Your task to perform on an android device: Open CNN.com Image 0: 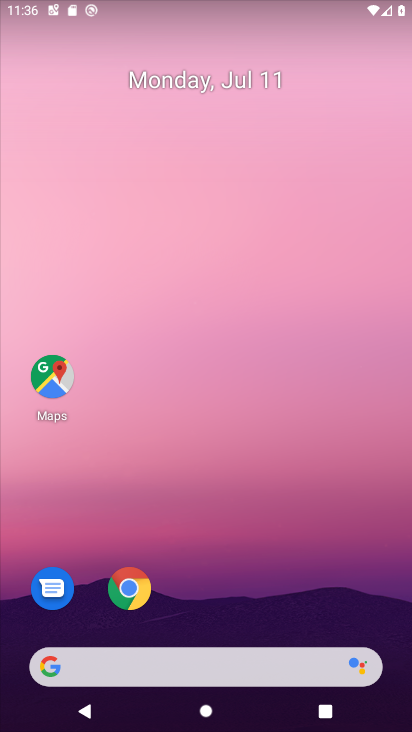
Step 0: drag from (282, 680) to (186, 12)
Your task to perform on an android device: Open CNN.com Image 1: 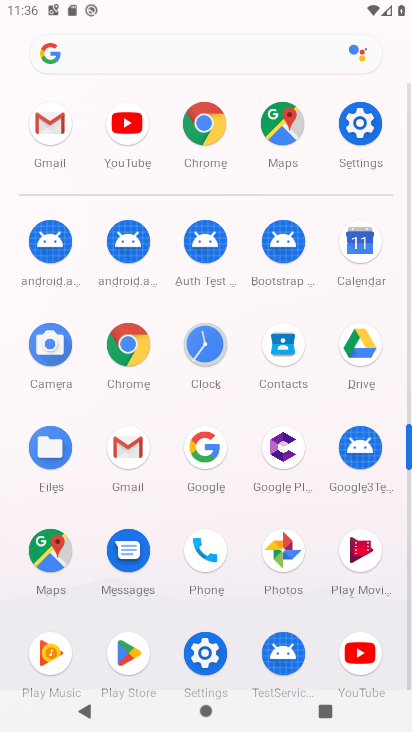
Step 1: click (190, 112)
Your task to perform on an android device: Open CNN.com Image 2: 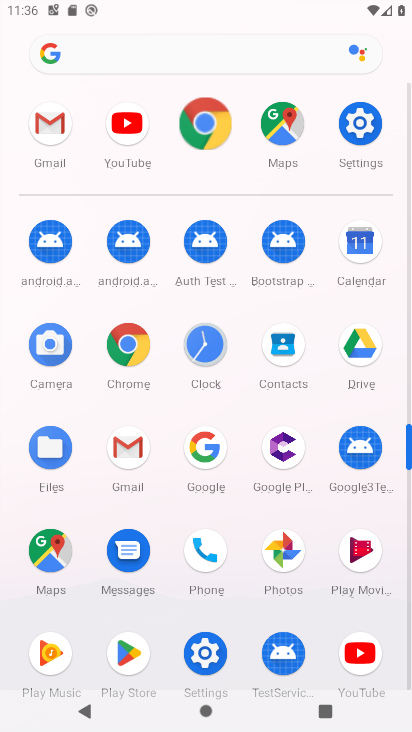
Step 2: click (199, 112)
Your task to perform on an android device: Open CNN.com Image 3: 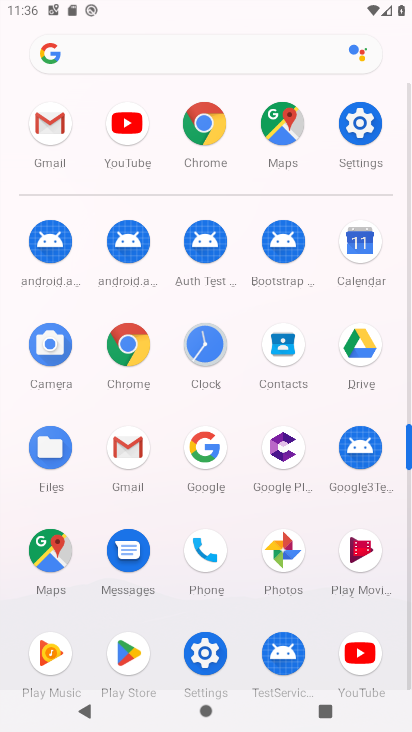
Step 3: click (205, 111)
Your task to perform on an android device: Open CNN.com Image 4: 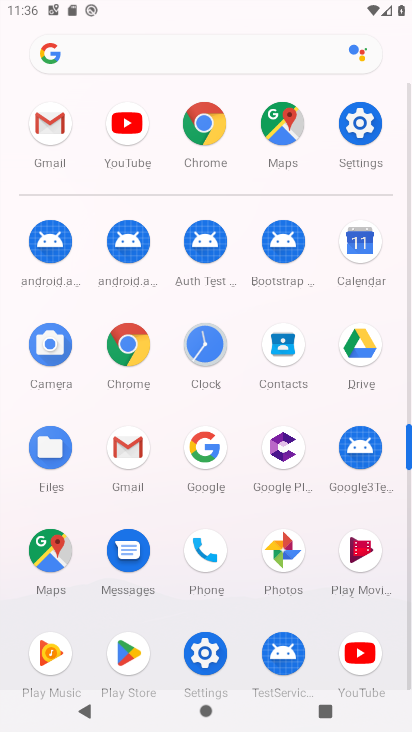
Step 4: click (208, 112)
Your task to perform on an android device: Open CNN.com Image 5: 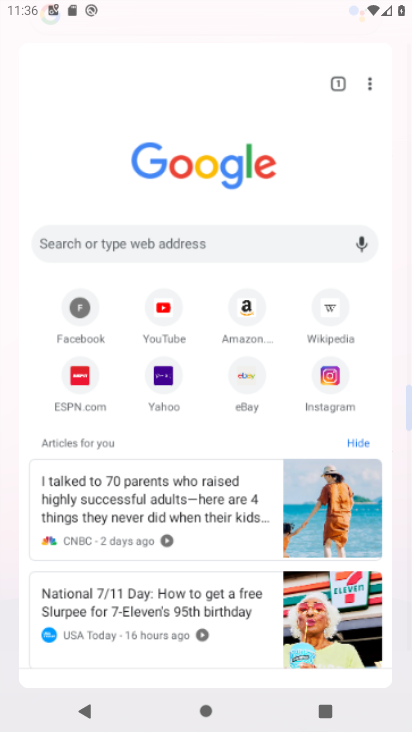
Step 5: click (211, 112)
Your task to perform on an android device: Open CNN.com Image 6: 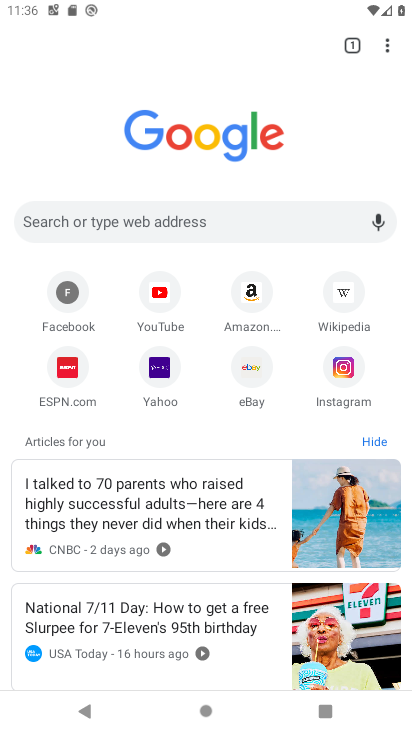
Step 6: click (42, 214)
Your task to perform on an android device: Open CNN.com Image 7: 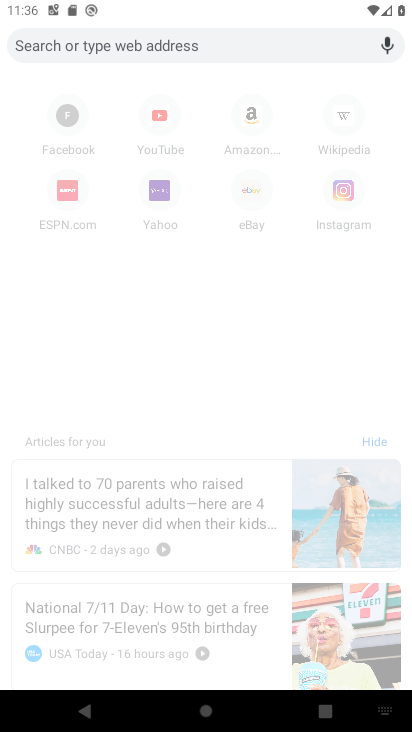
Step 7: type "CNN.com"
Your task to perform on an android device: Open CNN.com Image 8: 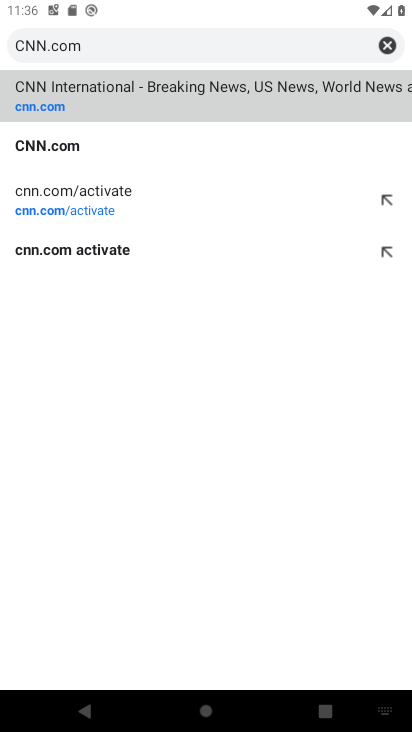
Step 8: click (103, 110)
Your task to perform on an android device: Open CNN.com Image 9: 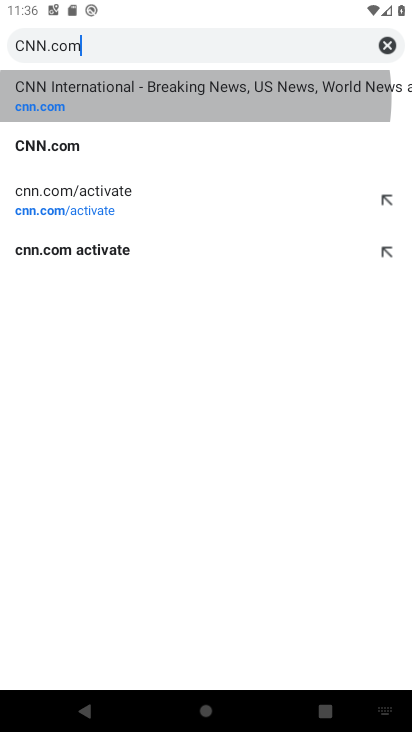
Step 9: click (108, 109)
Your task to perform on an android device: Open CNN.com Image 10: 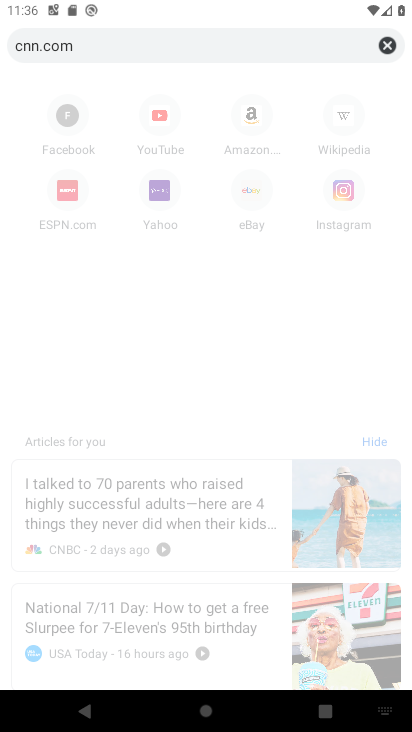
Step 10: click (110, 108)
Your task to perform on an android device: Open CNN.com Image 11: 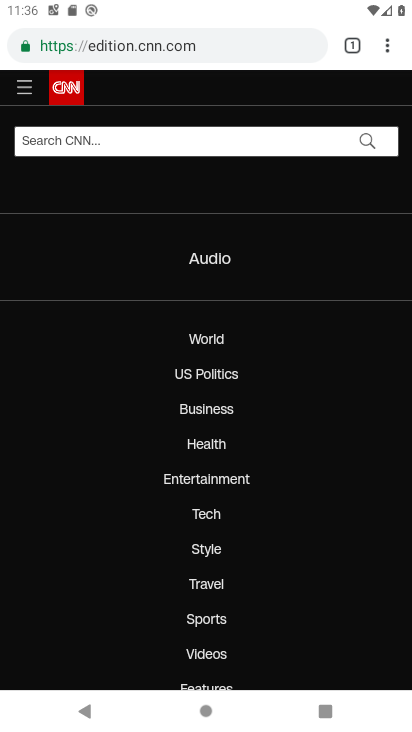
Step 11: task complete